Your task to perform on an android device: Open sound settings Image 0: 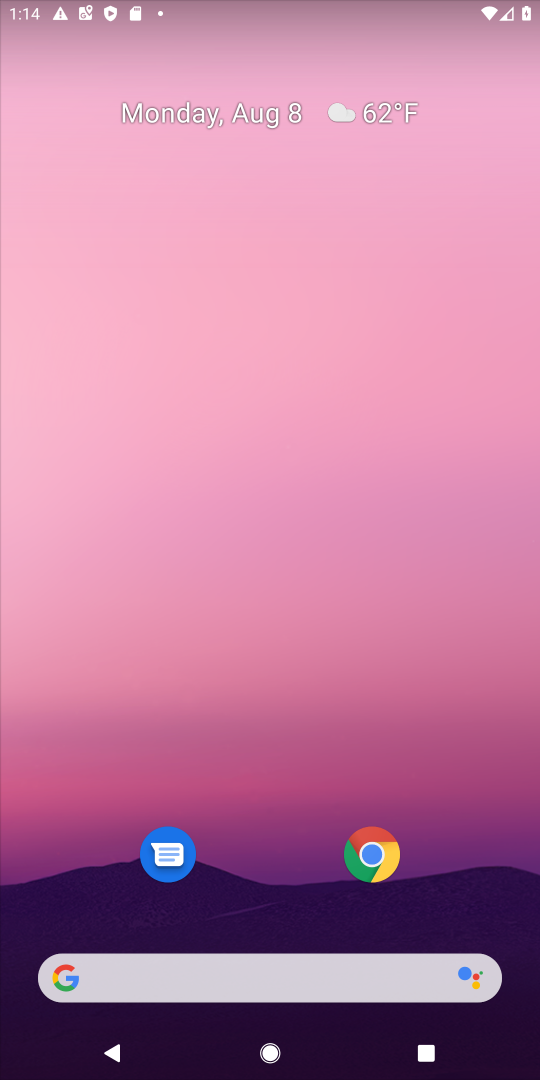
Step 0: drag from (228, 351) to (188, 5)
Your task to perform on an android device: Open sound settings Image 1: 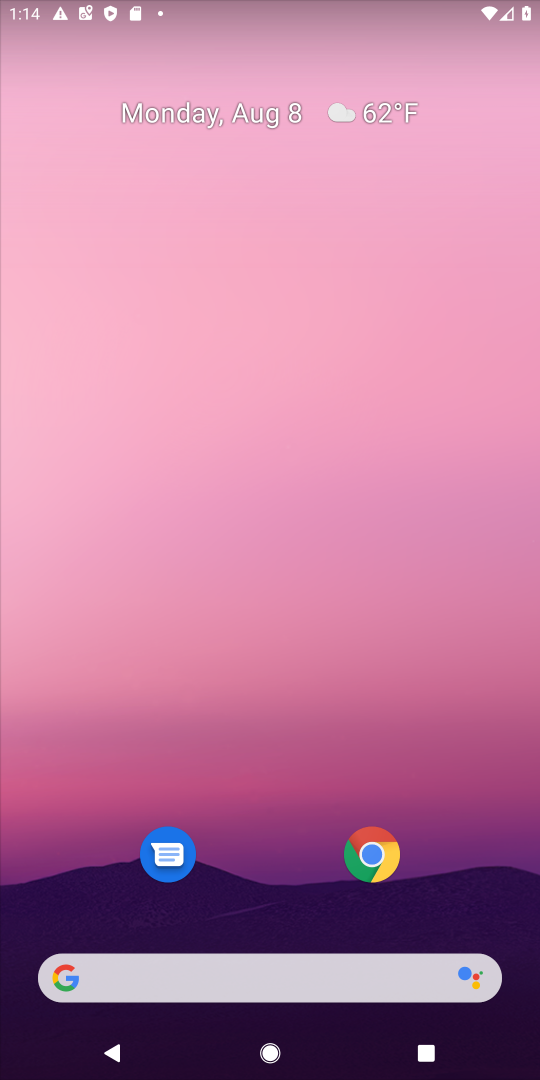
Step 1: drag from (307, 865) to (270, 0)
Your task to perform on an android device: Open sound settings Image 2: 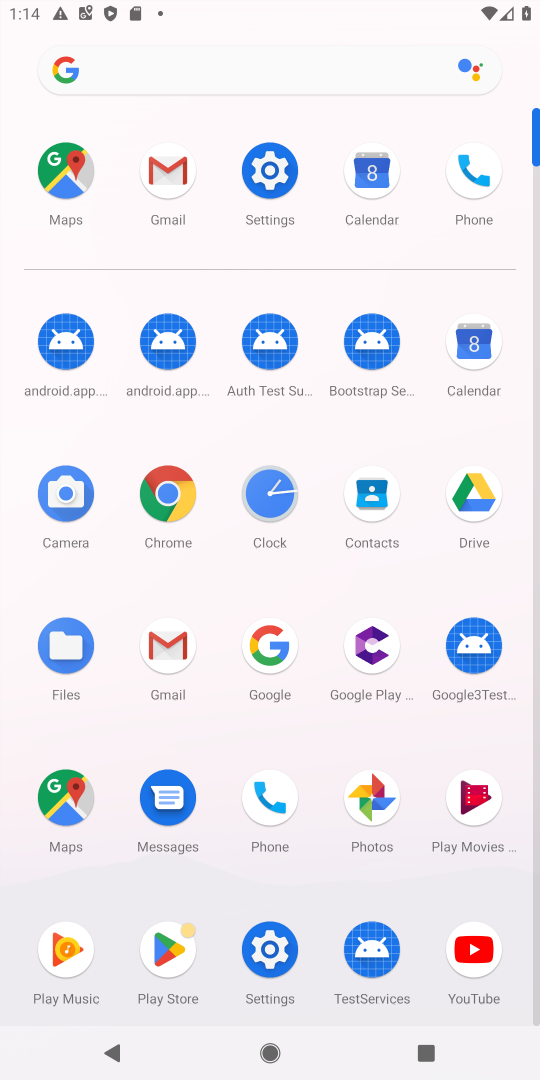
Step 2: click (259, 172)
Your task to perform on an android device: Open sound settings Image 3: 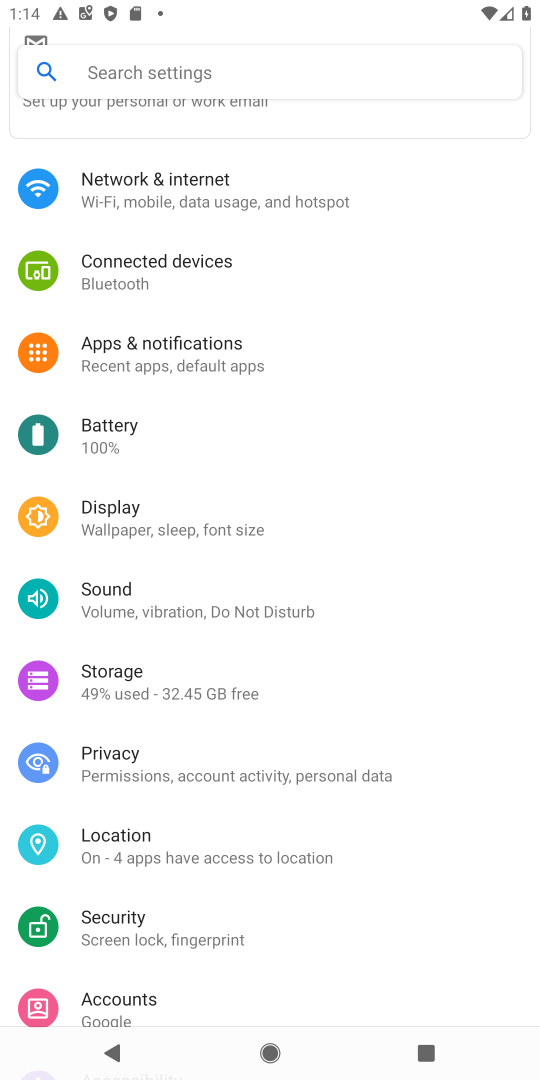
Step 3: click (142, 586)
Your task to perform on an android device: Open sound settings Image 4: 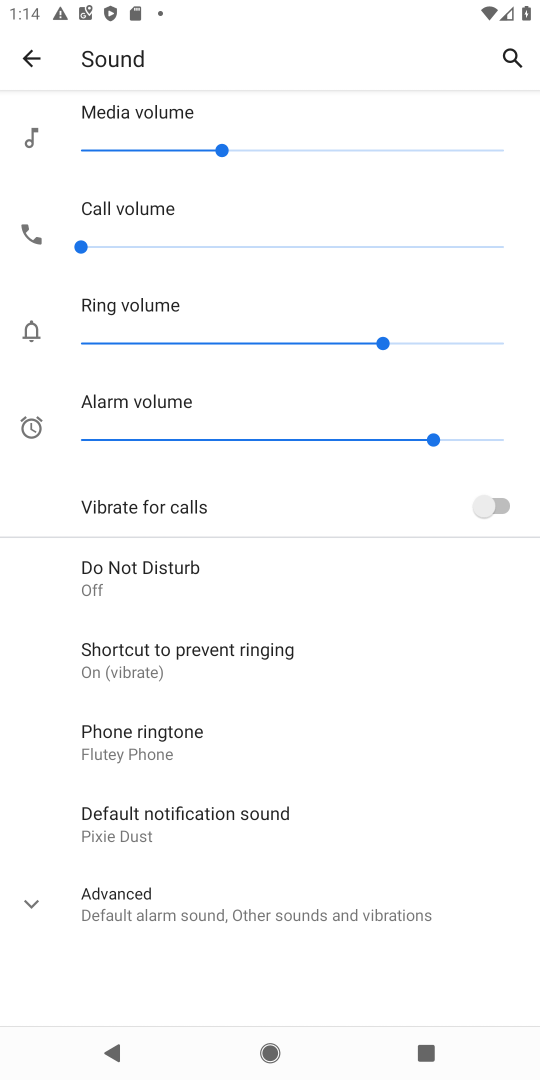
Step 4: task complete